Your task to perform on an android device: turn off wifi Image 0: 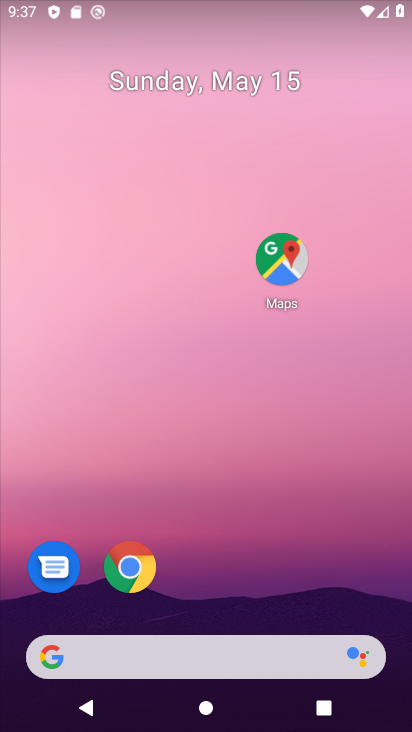
Step 0: drag from (251, 597) to (167, 150)
Your task to perform on an android device: turn off wifi Image 1: 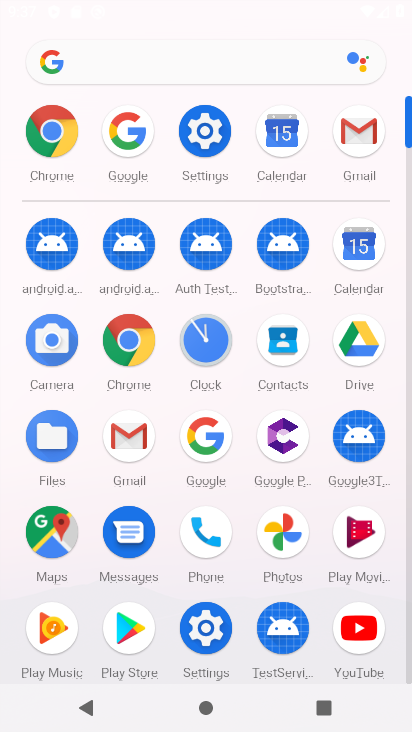
Step 1: click (200, 133)
Your task to perform on an android device: turn off wifi Image 2: 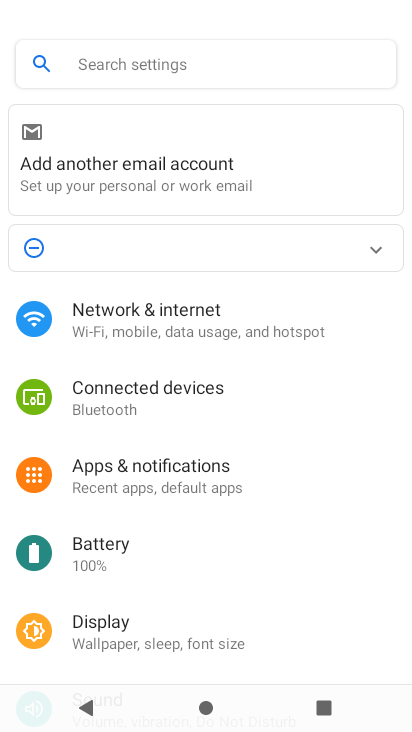
Step 2: click (170, 302)
Your task to perform on an android device: turn off wifi Image 3: 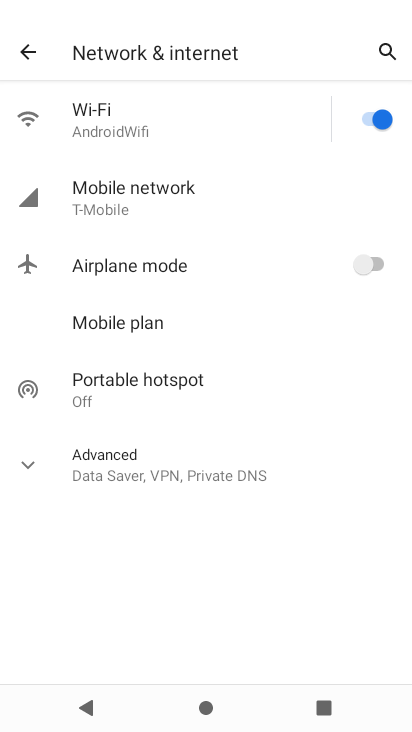
Step 3: click (391, 108)
Your task to perform on an android device: turn off wifi Image 4: 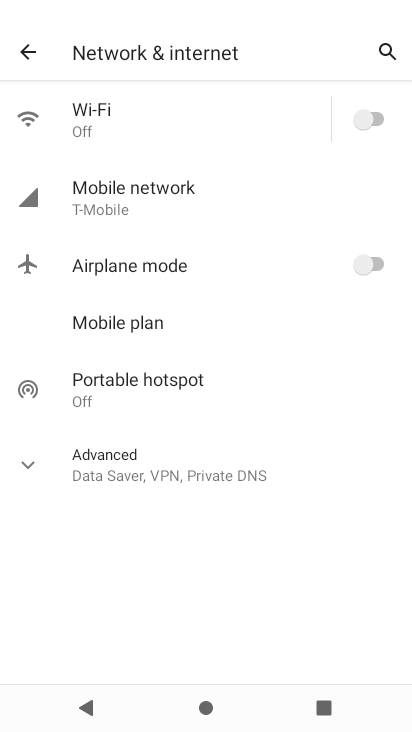
Step 4: task complete